Your task to perform on an android device: turn on location history Image 0: 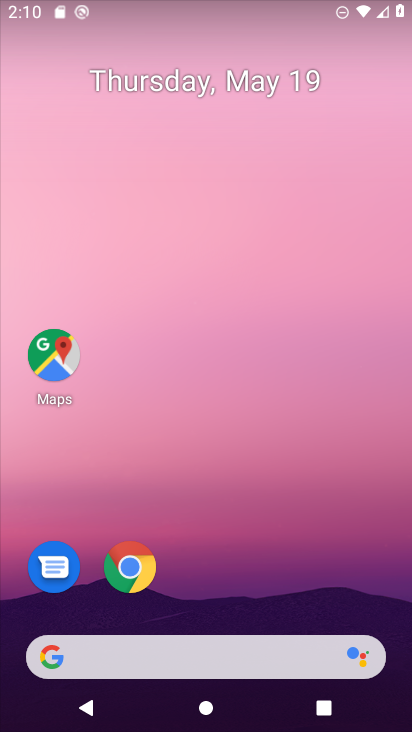
Step 0: drag from (258, 530) to (236, 79)
Your task to perform on an android device: turn on location history Image 1: 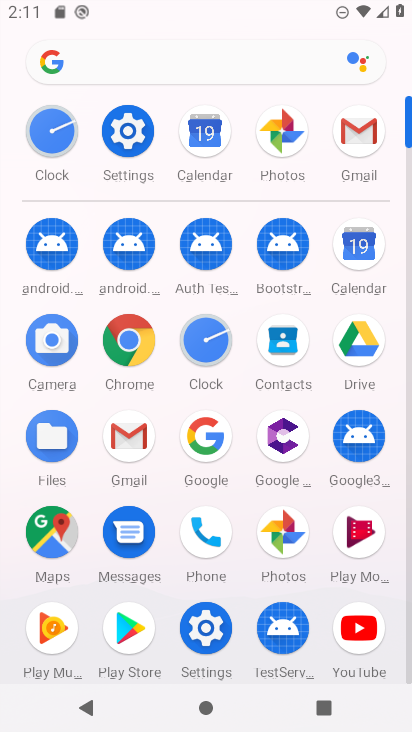
Step 1: click (129, 127)
Your task to perform on an android device: turn on location history Image 2: 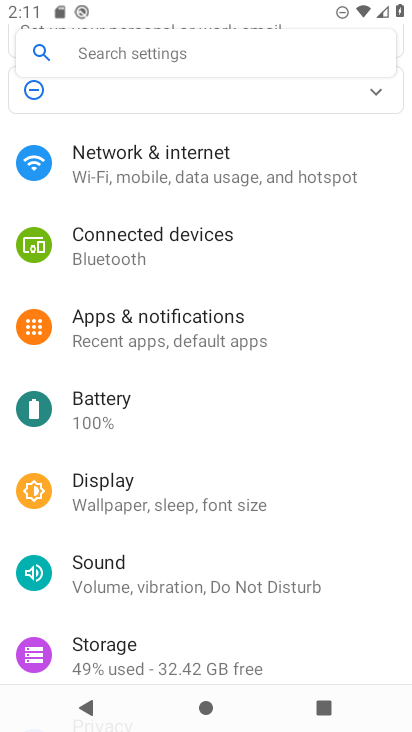
Step 2: drag from (212, 550) to (235, 104)
Your task to perform on an android device: turn on location history Image 3: 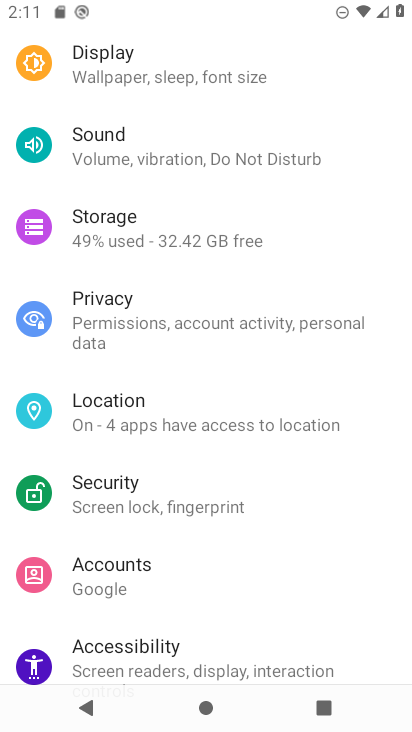
Step 3: click (192, 416)
Your task to perform on an android device: turn on location history Image 4: 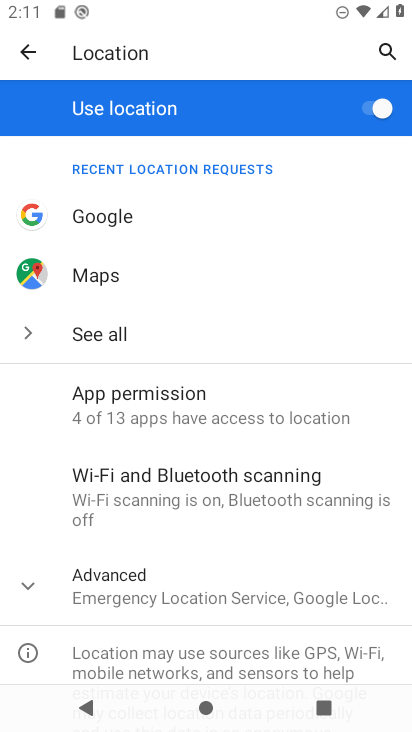
Step 4: click (26, 584)
Your task to perform on an android device: turn on location history Image 5: 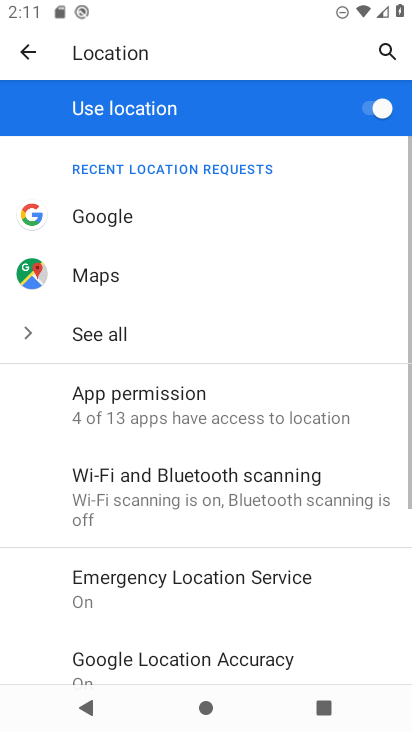
Step 5: drag from (230, 492) to (260, 232)
Your task to perform on an android device: turn on location history Image 6: 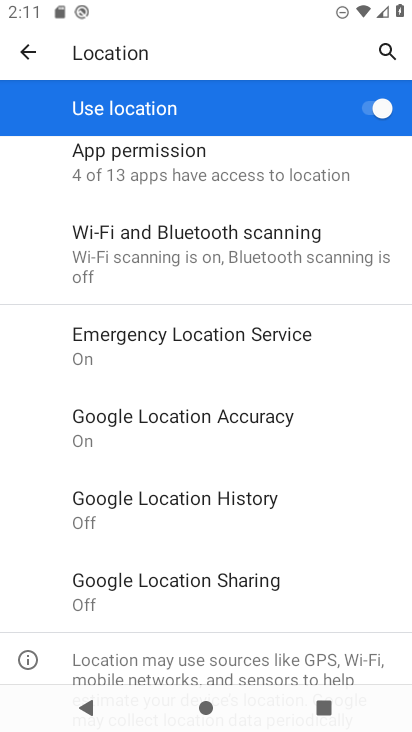
Step 6: click (197, 504)
Your task to perform on an android device: turn on location history Image 7: 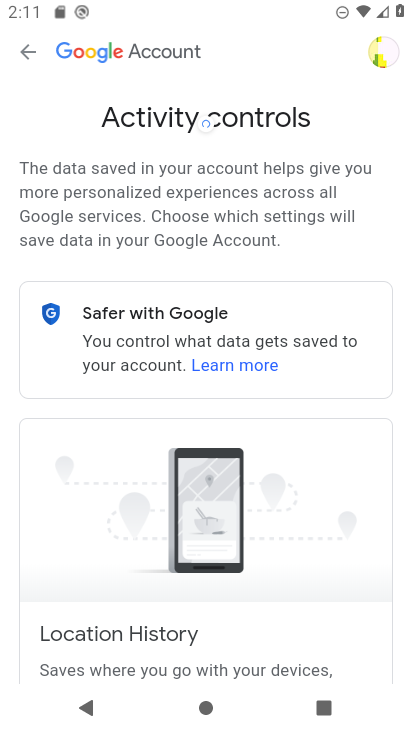
Step 7: drag from (296, 520) to (282, 155)
Your task to perform on an android device: turn on location history Image 8: 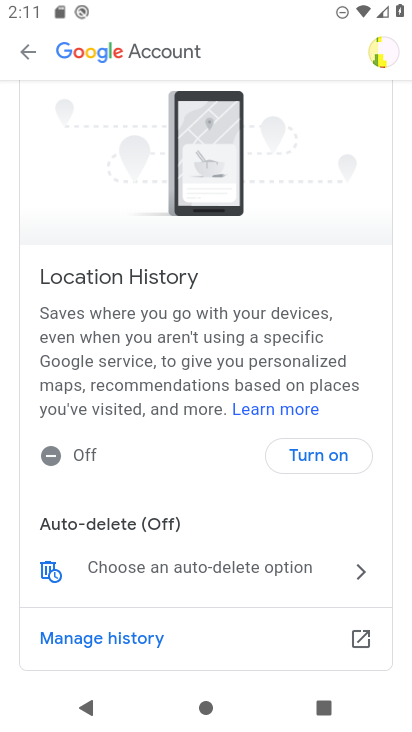
Step 8: click (318, 454)
Your task to perform on an android device: turn on location history Image 9: 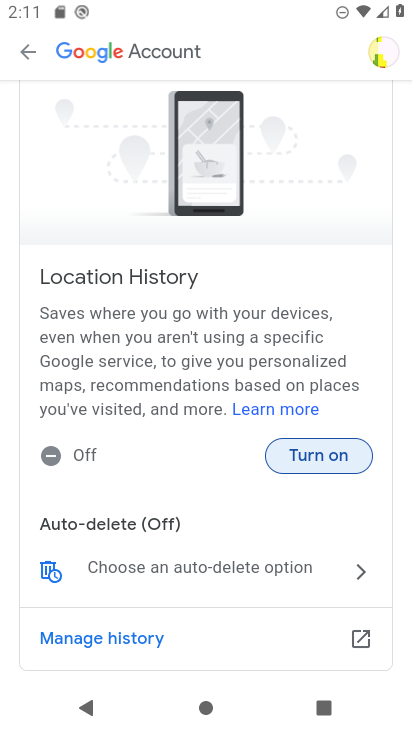
Step 9: click (318, 454)
Your task to perform on an android device: turn on location history Image 10: 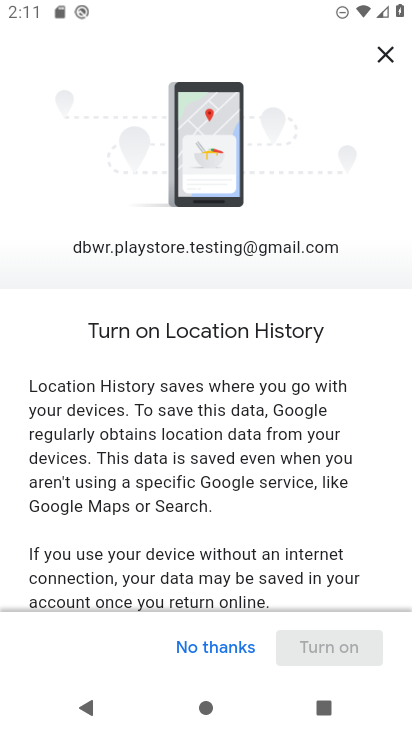
Step 10: drag from (300, 544) to (321, 190)
Your task to perform on an android device: turn on location history Image 11: 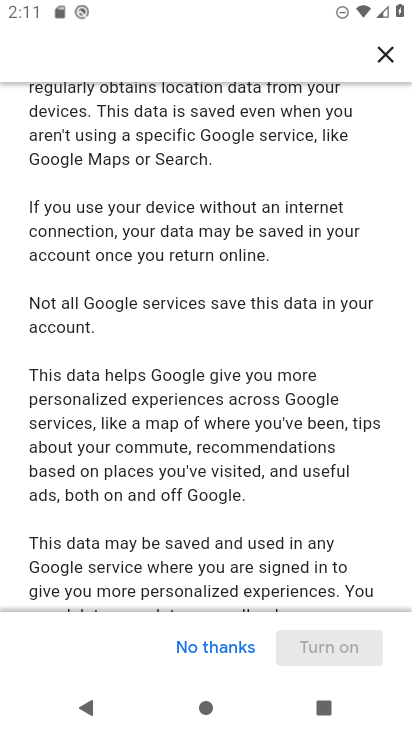
Step 11: drag from (283, 525) to (293, 226)
Your task to perform on an android device: turn on location history Image 12: 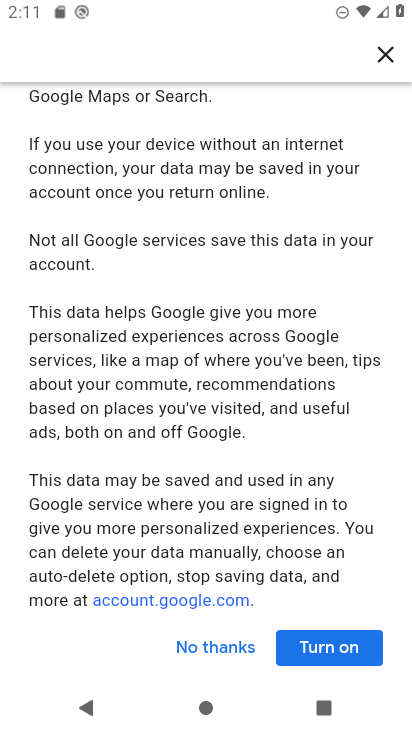
Step 12: click (321, 644)
Your task to perform on an android device: turn on location history Image 13: 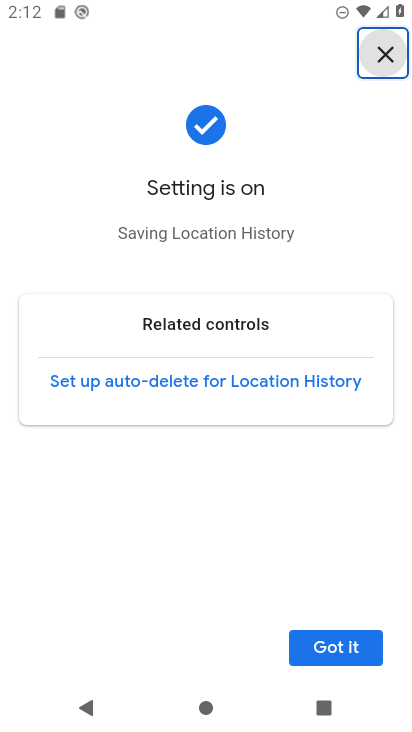
Step 13: click (321, 644)
Your task to perform on an android device: turn on location history Image 14: 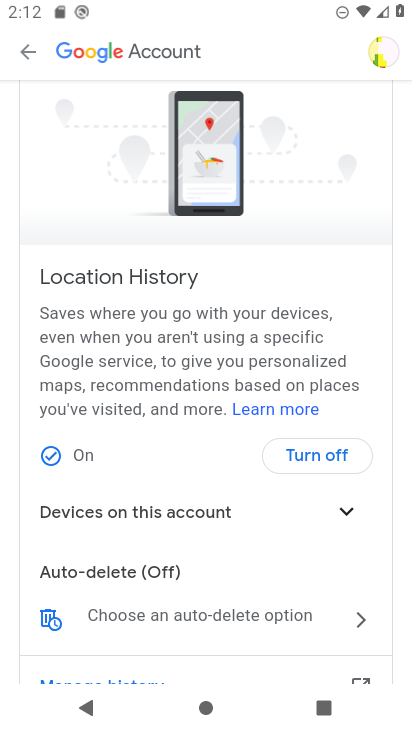
Step 14: task complete